Your task to perform on an android device: delete browsing data in the chrome app Image 0: 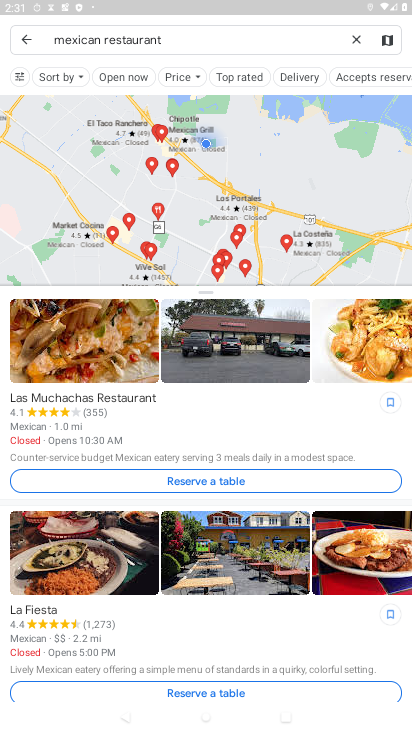
Step 0: press home button
Your task to perform on an android device: delete browsing data in the chrome app Image 1: 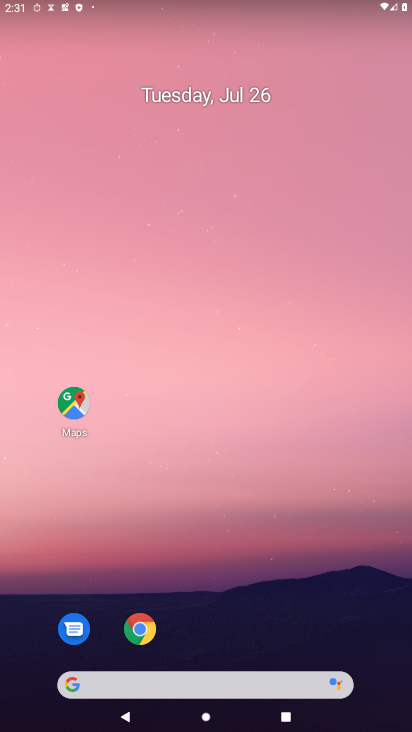
Step 1: drag from (194, 7) to (231, 2)
Your task to perform on an android device: delete browsing data in the chrome app Image 2: 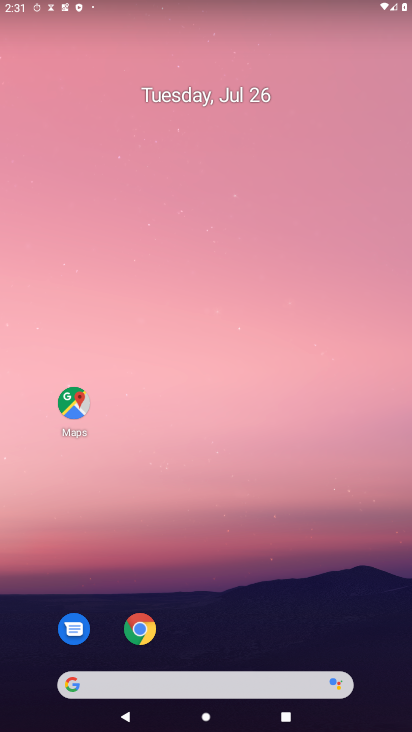
Step 2: drag from (332, 558) to (386, 1)
Your task to perform on an android device: delete browsing data in the chrome app Image 3: 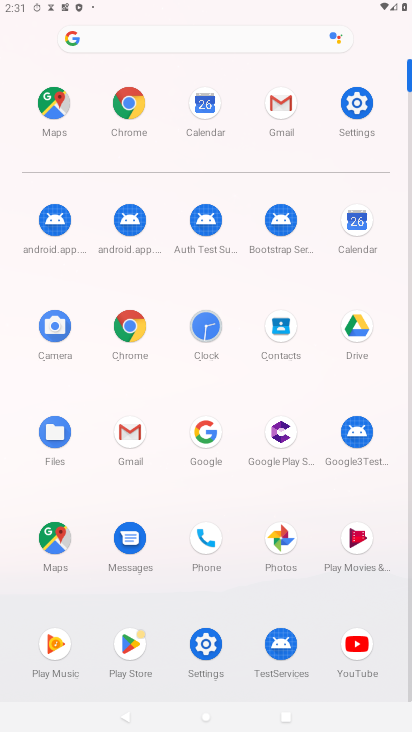
Step 3: click (131, 328)
Your task to perform on an android device: delete browsing data in the chrome app Image 4: 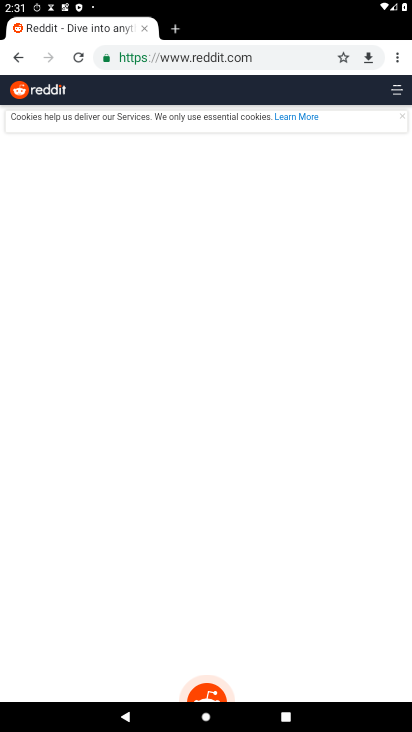
Step 4: drag from (395, 59) to (285, 386)
Your task to perform on an android device: delete browsing data in the chrome app Image 5: 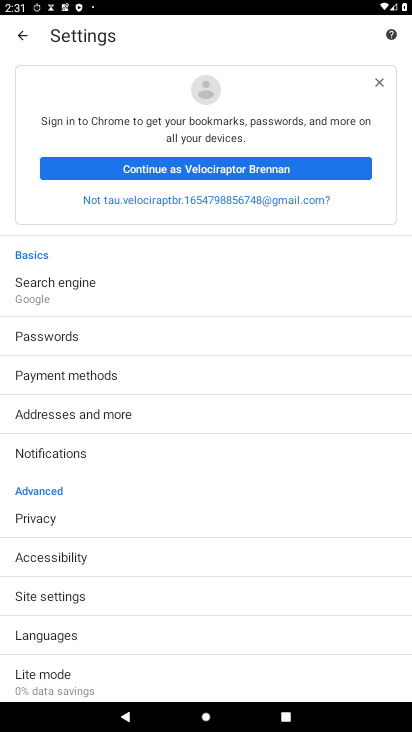
Step 5: click (74, 528)
Your task to perform on an android device: delete browsing data in the chrome app Image 6: 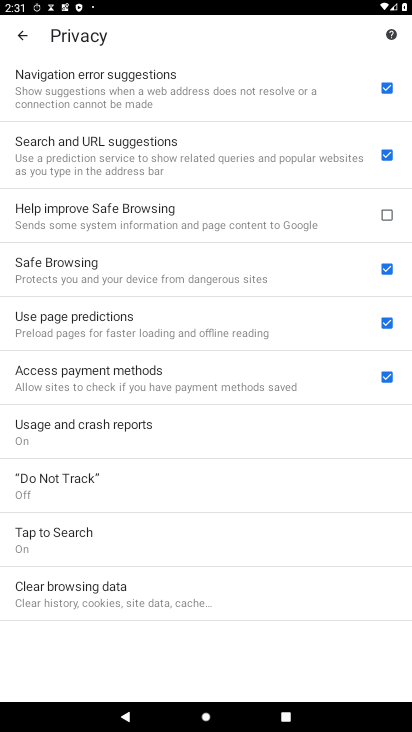
Step 6: click (115, 586)
Your task to perform on an android device: delete browsing data in the chrome app Image 7: 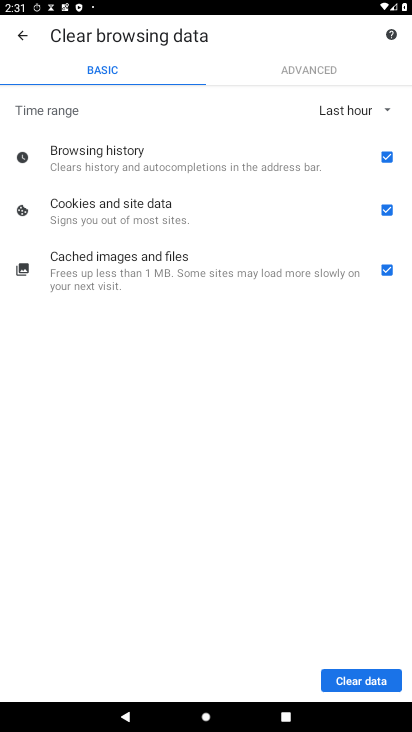
Step 7: click (386, 679)
Your task to perform on an android device: delete browsing data in the chrome app Image 8: 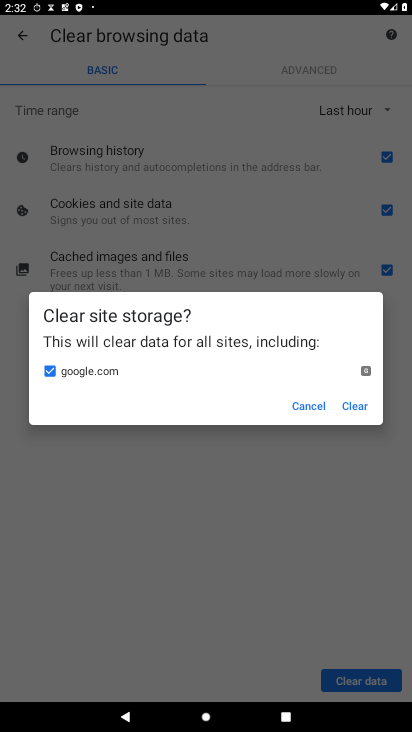
Step 8: click (358, 405)
Your task to perform on an android device: delete browsing data in the chrome app Image 9: 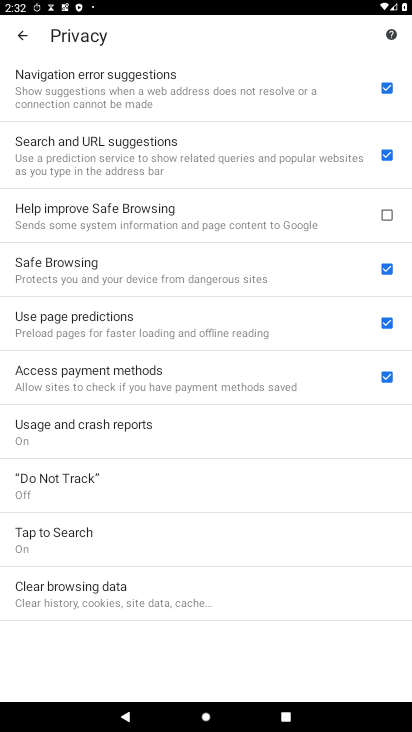
Step 9: task complete